Your task to perform on an android device: open a bookmark in the chrome app Image 0: 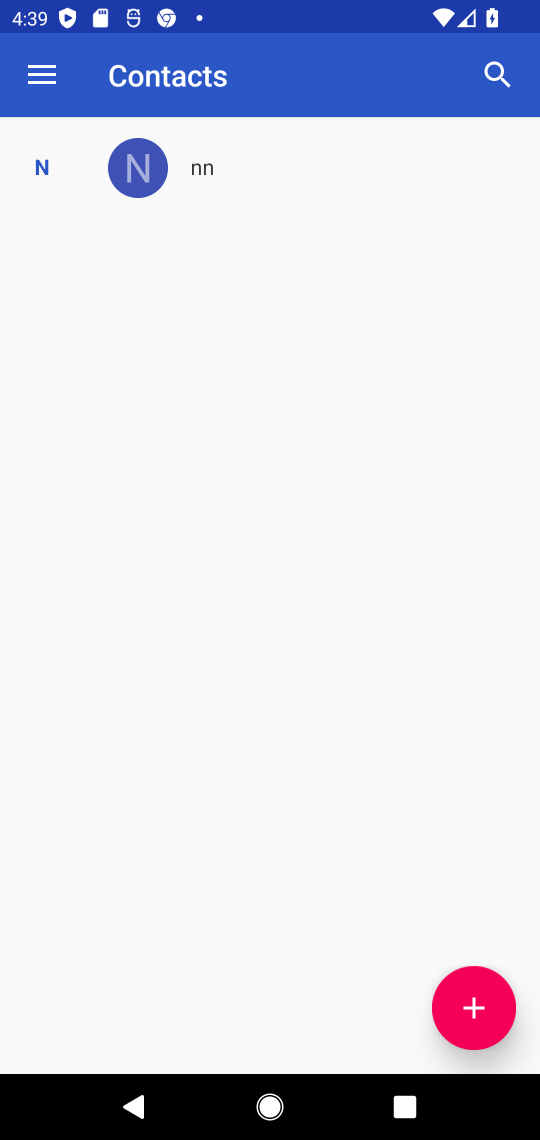
Step 0: press home button
Your task to perform on an android device: open a bookmark in the chrome app Image 1: 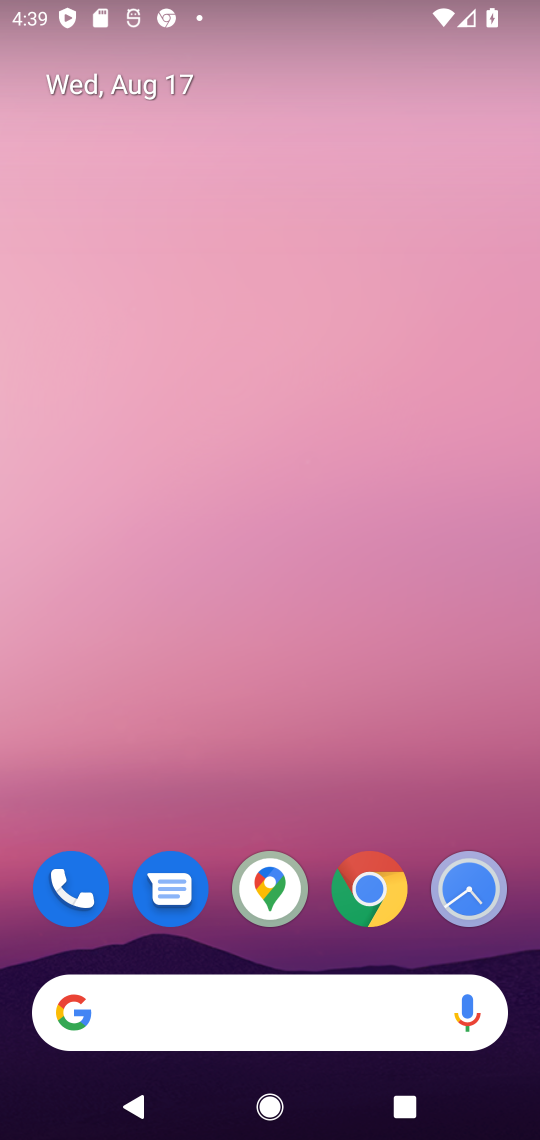
Step 1: click (369, 891)
Your task to perform on an android device: open a bookmark in the chrome app Image 2: 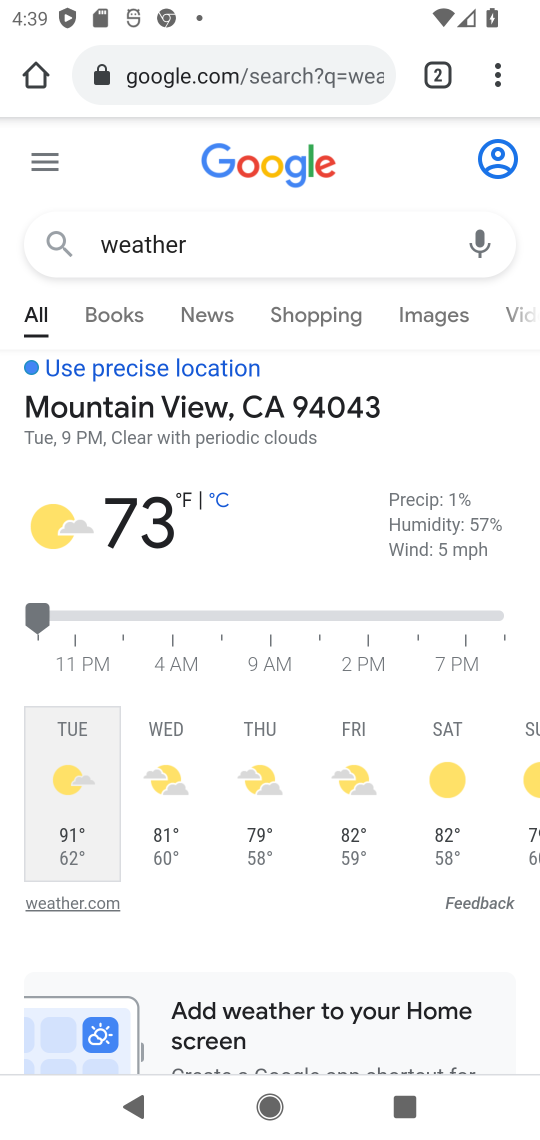
Step 2: click (485, 74)
Your task to perform on an android device: open a bookmark in the chrome app Image 3: 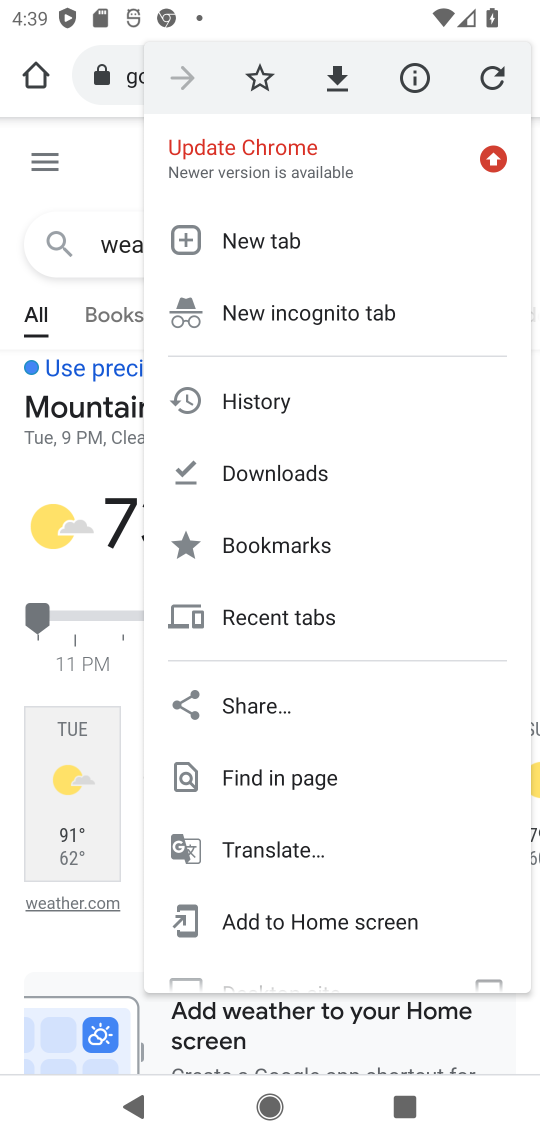
Step 3: click (293, 542)
Your task to perform on an android device: open a bookmark in the chrome app Image 4: 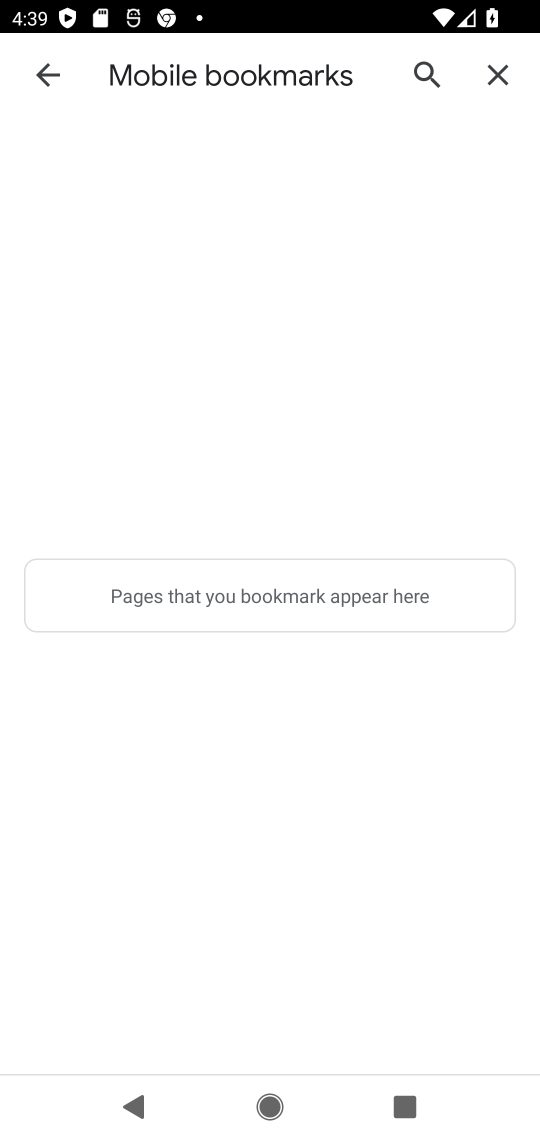
Step 4: task complete